Your task to perform on an android device: Go to Yahoo.com Image 0: 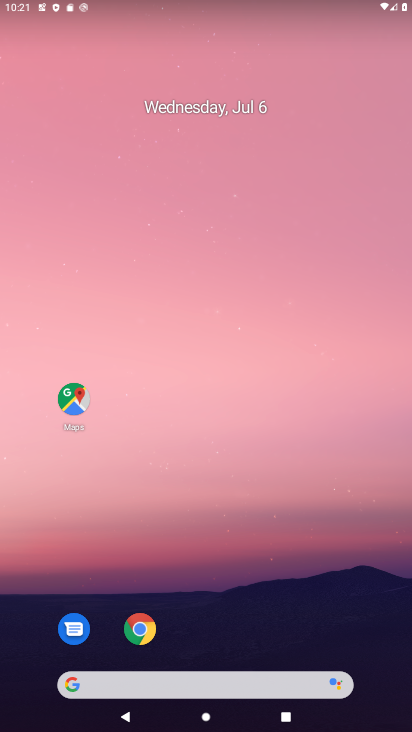
Step 0: drag from (246, 660) to (296, 117)
Your task to perform on an android device: Go to Yahoo.com Image 1: 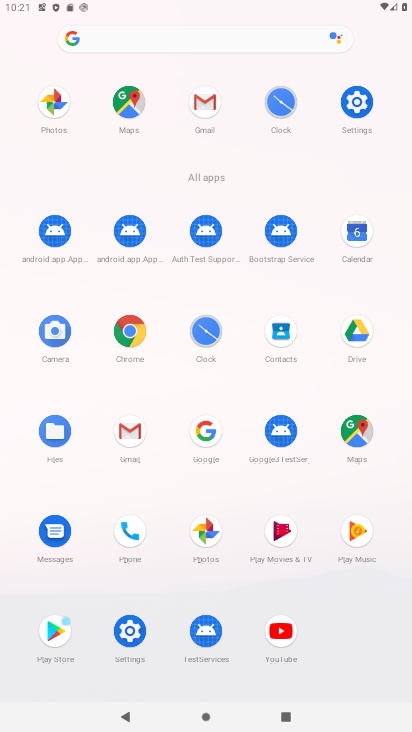
Step 1: click (203, 432)
Your task to perform on an android device: Go to Yahoo.com Image 2: 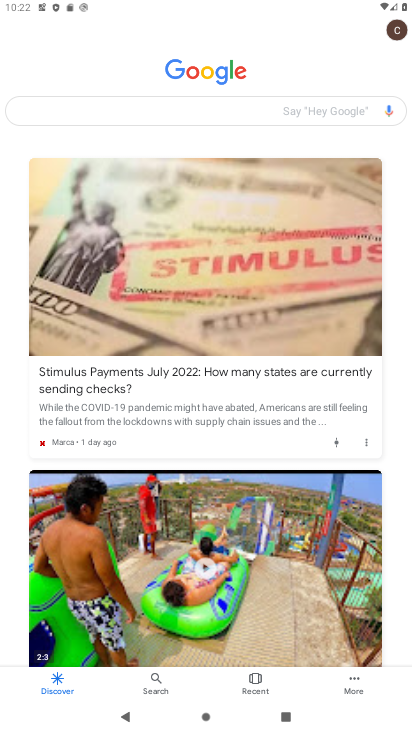
Step 2: click (252, 112)
Your task to perform on an android device: Go to Yahoo.com Image 3: 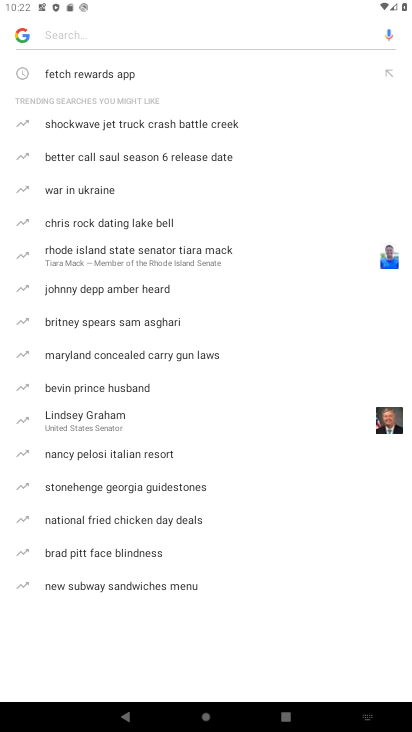
Step 3: type "Yahoo.com"
Your task to perform on an android device: Go to Yahoo.com Image 4: 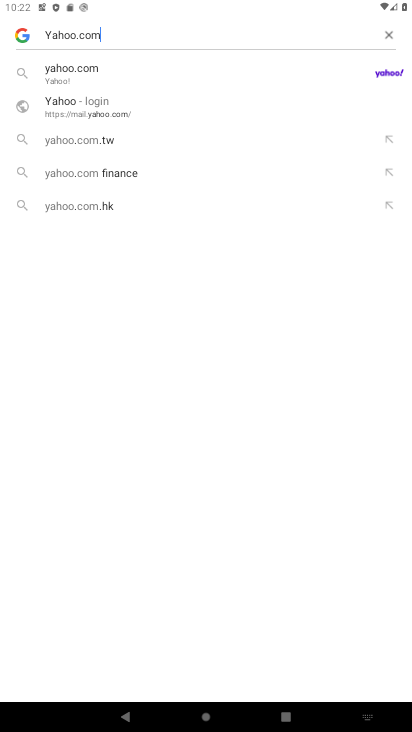
Step 4: click (138, 69)
Your task to perform on an android device: Go to Yahoo.com Image 5: 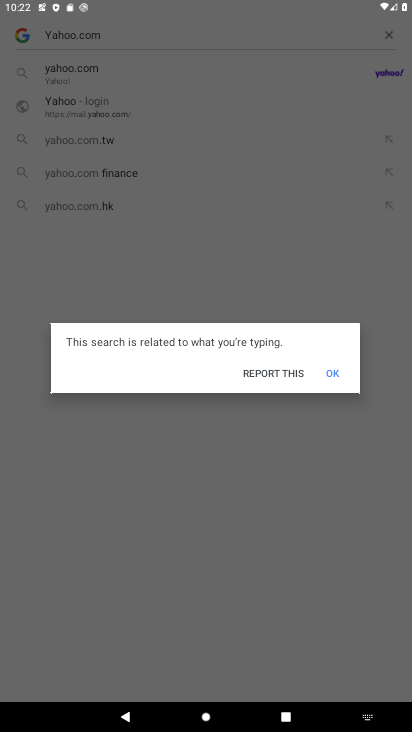
Step 5: click (332, 374)
Your task to perform on an android device: Go to Yahoo.com Image 6: 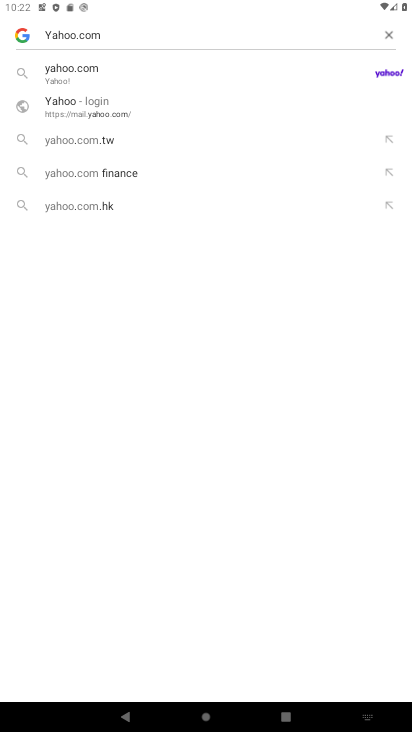
Step 6: click (118, 70)
Your task to perform on an android device: Go to Yahoo.com Image 7: 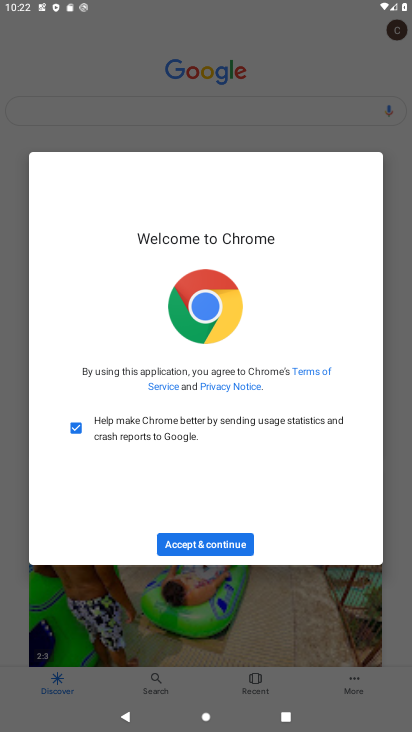
Step 7: click (221, 544)
Your task to perform on an android device: Go to Yahoo.com Image 8: 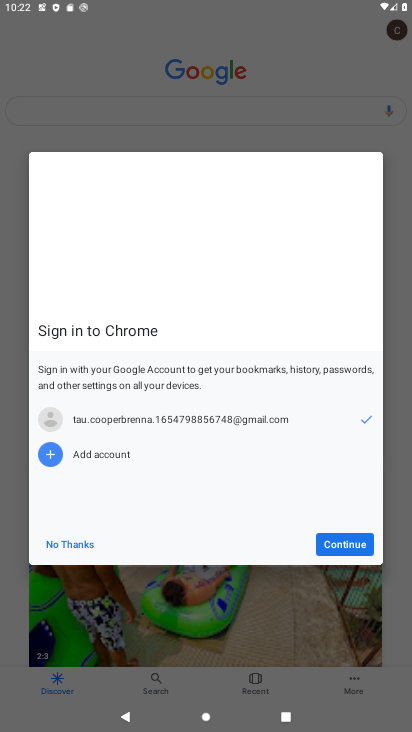
Step 8: click (353, 540)
Your task to perform on an android device: Go to Yahoo.com Image 9: 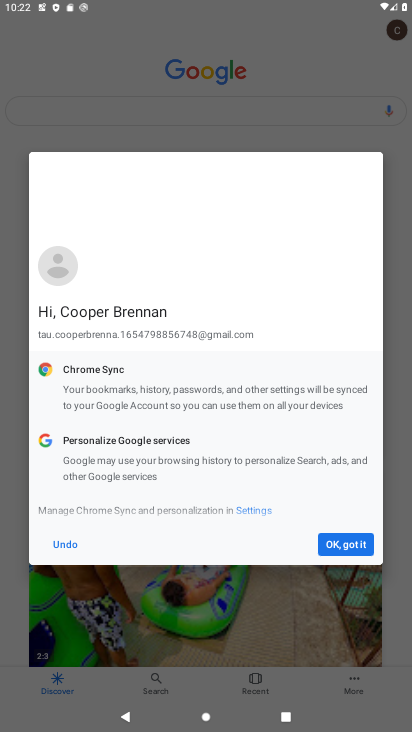
Step 9: click (353, 540)
Your task to perform on an android device: Go to Yahoo.com Image 10: 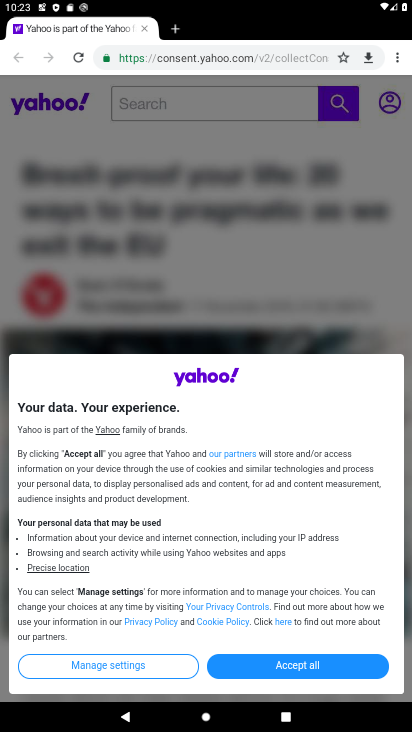
Step 10: click (277, 659)
Your task to perform on an android device: Go to Yahoo.com Image 11: 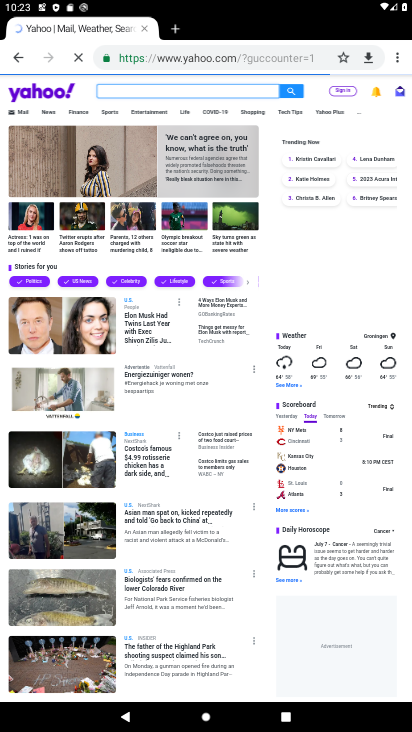
Step 11: task complete